Your task to perform on an android device: Empty the shopping cart on target. Add logitech g903 to the cart on target, then select checkout. Image 0: 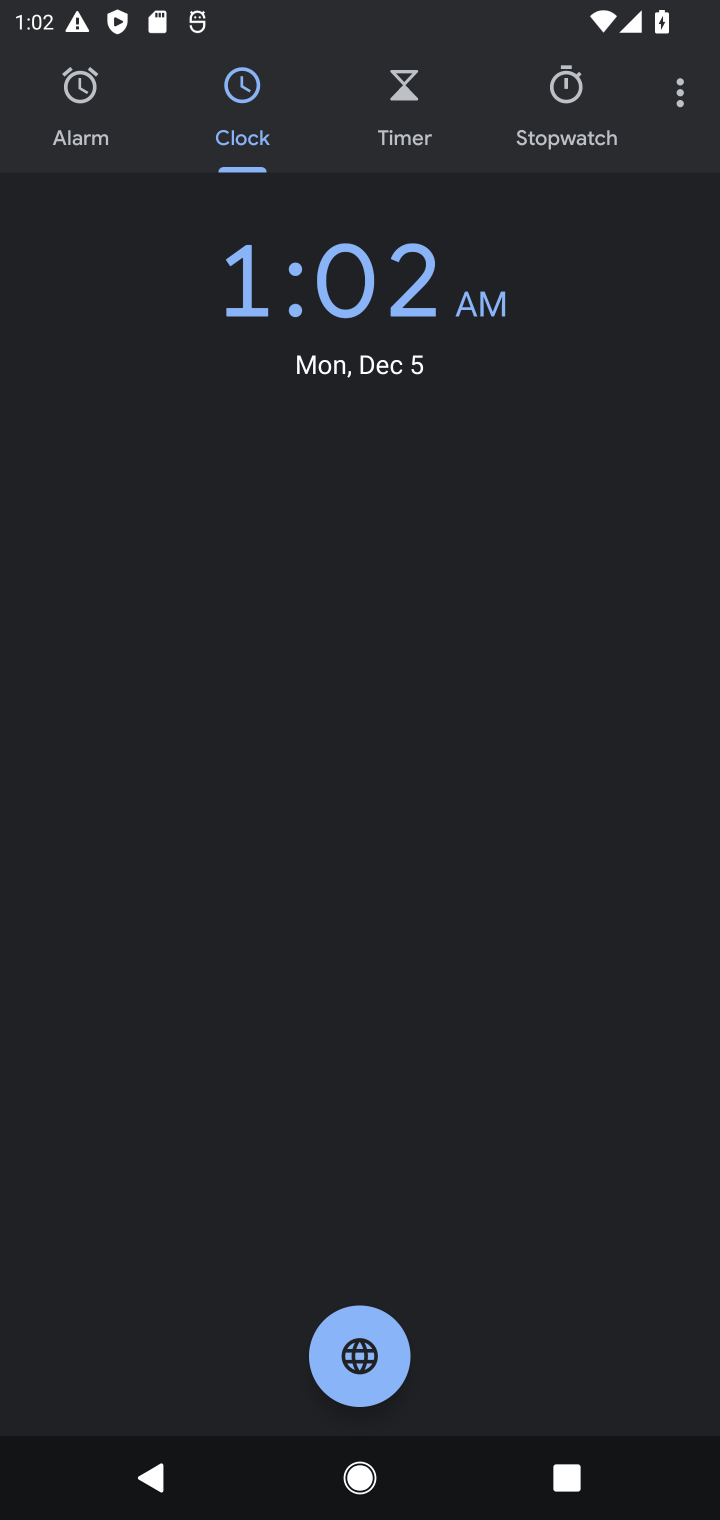
Step 0: press home button
Your task to perform on an android device: Empty the shopping cart on target. Add logitech g903 to the cart on target, then select checkout. Image 1: 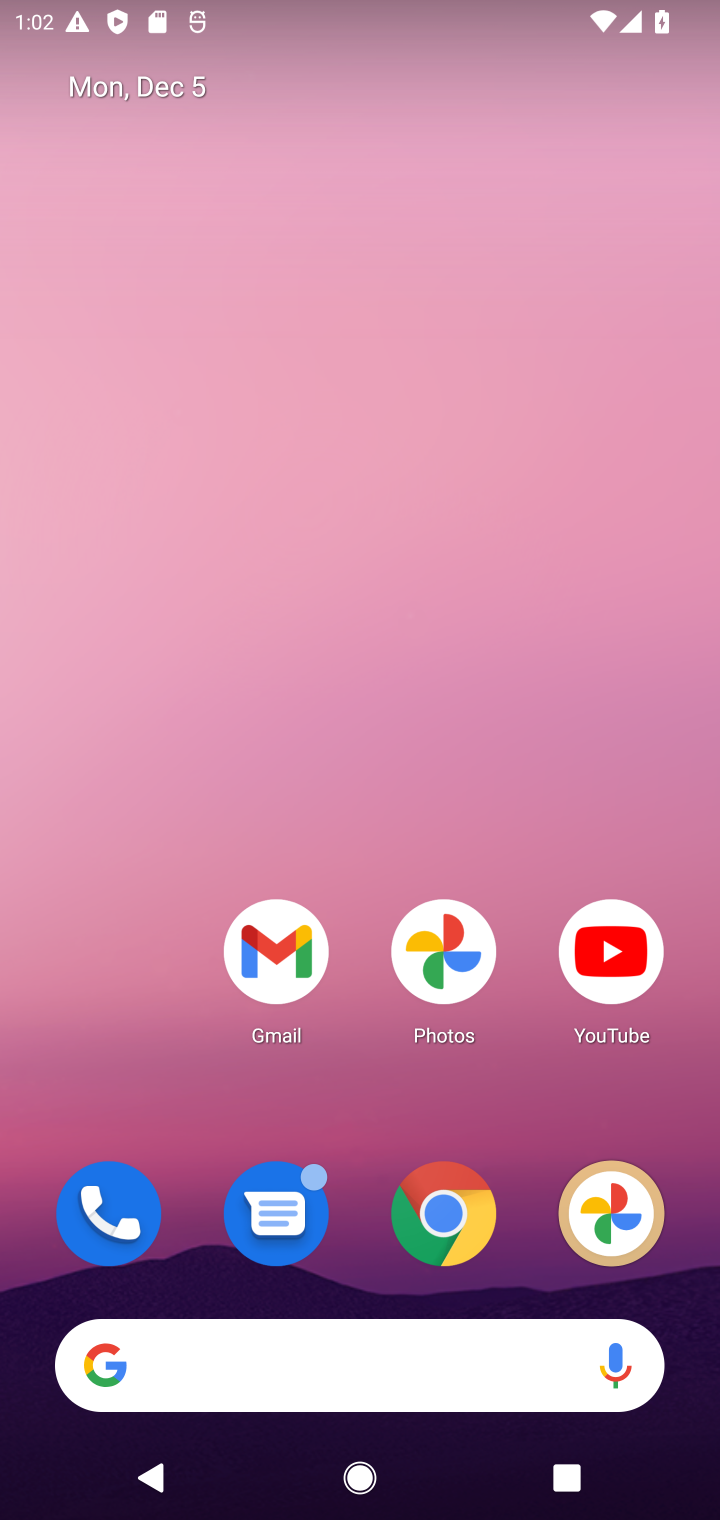
Step 1: click (445, 1195)
Your task to perform on an android device: Empty the shopping cart on target. Add logitech g903 to the cart on target, then select checkout. Image 2: 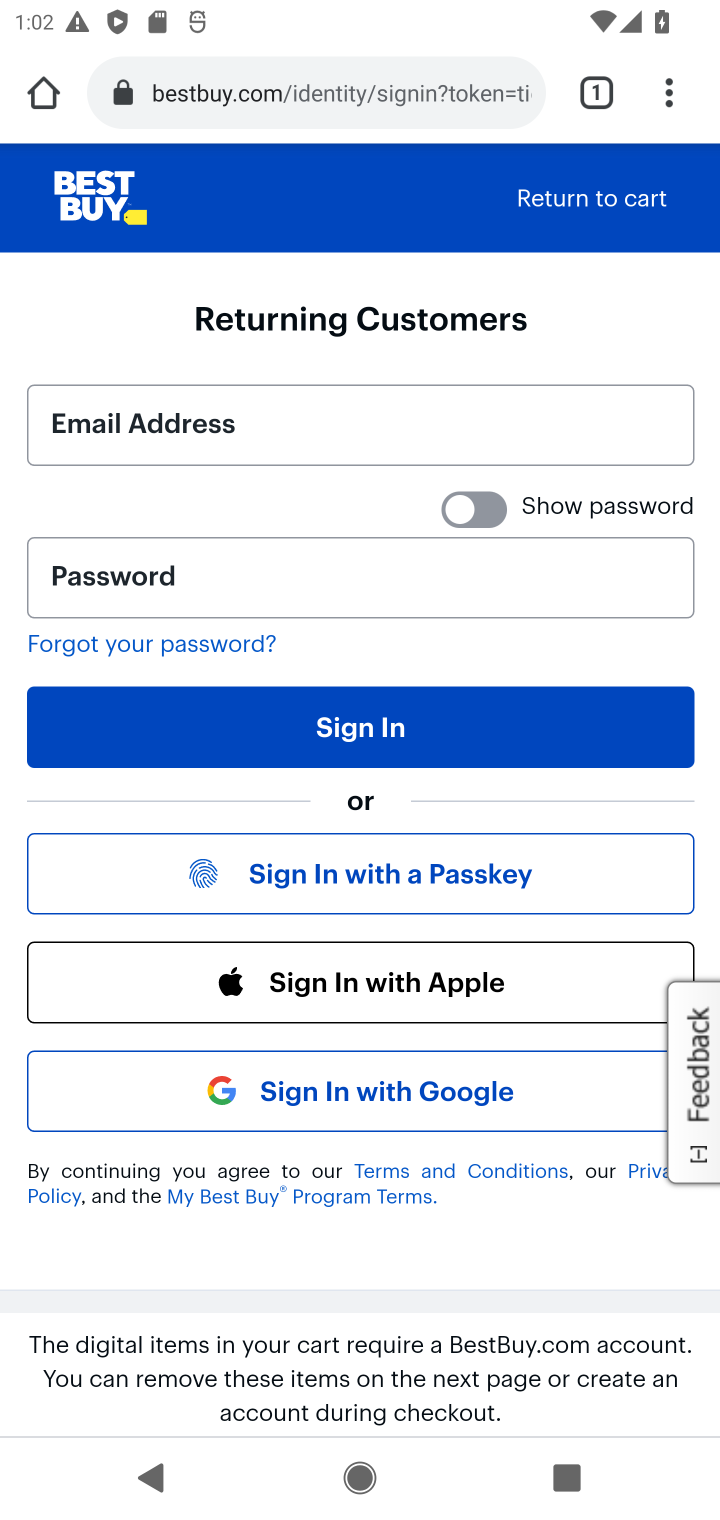
Step 2: click (345, 94)
Your task to perform on an android device: Empty the shopping cart on target. Add logitech g903 to the cart on target, then select checkout. Image 3: 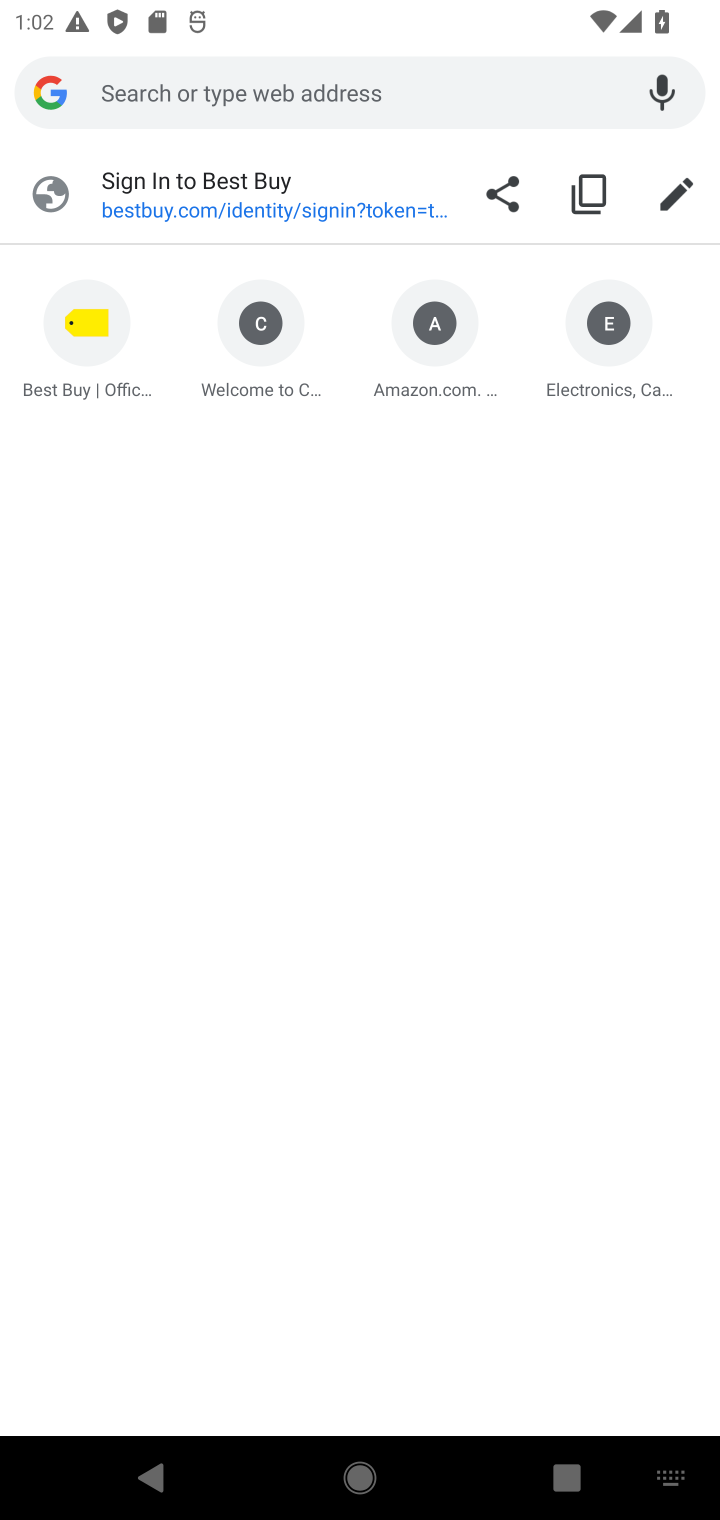
Step 3: type "target.com"
Your task to perform on an android device: Empty the shopping cart on target. Add logitech g903 to the cart on target, then select checkout. Image 4: 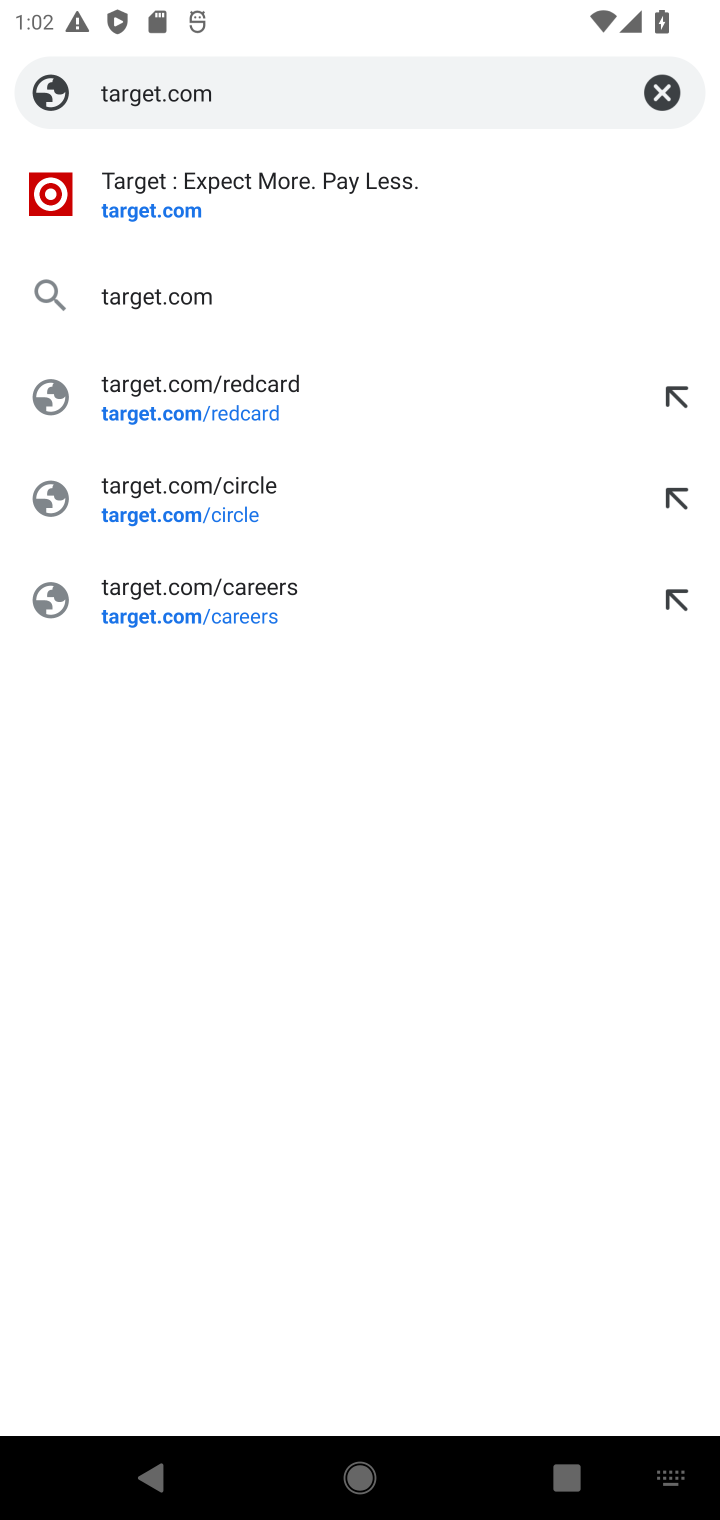
Step 4: click (157, 204)
Your task to perform on an android device: Empty the shopping cart on target. Add logitech g903 to the cart on target, then select checkout. Image 5: 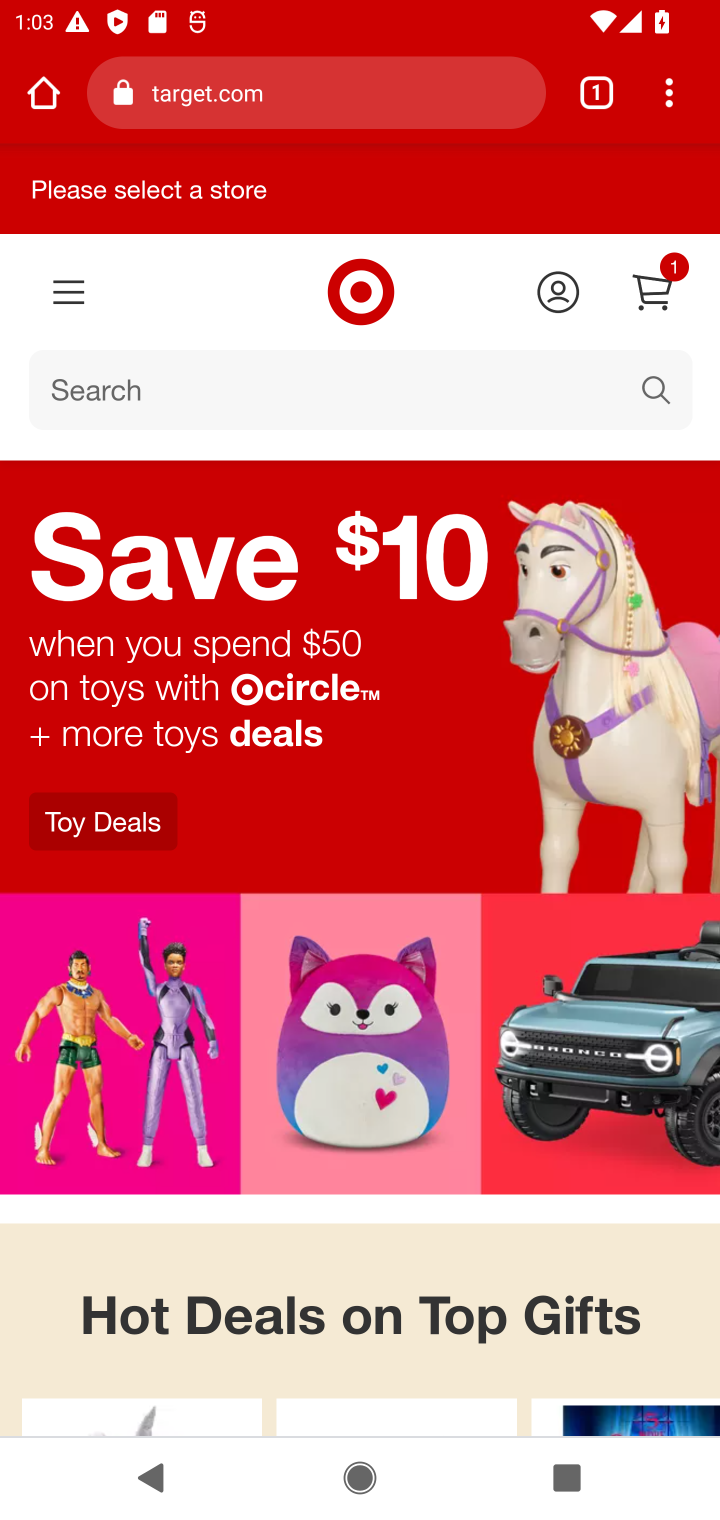
Step 5: click (656, 295)
Your task to perform on an android device: Empty the shopping cart on target. Add logitech g903 to the cart on target, then select checkout. Image 6: 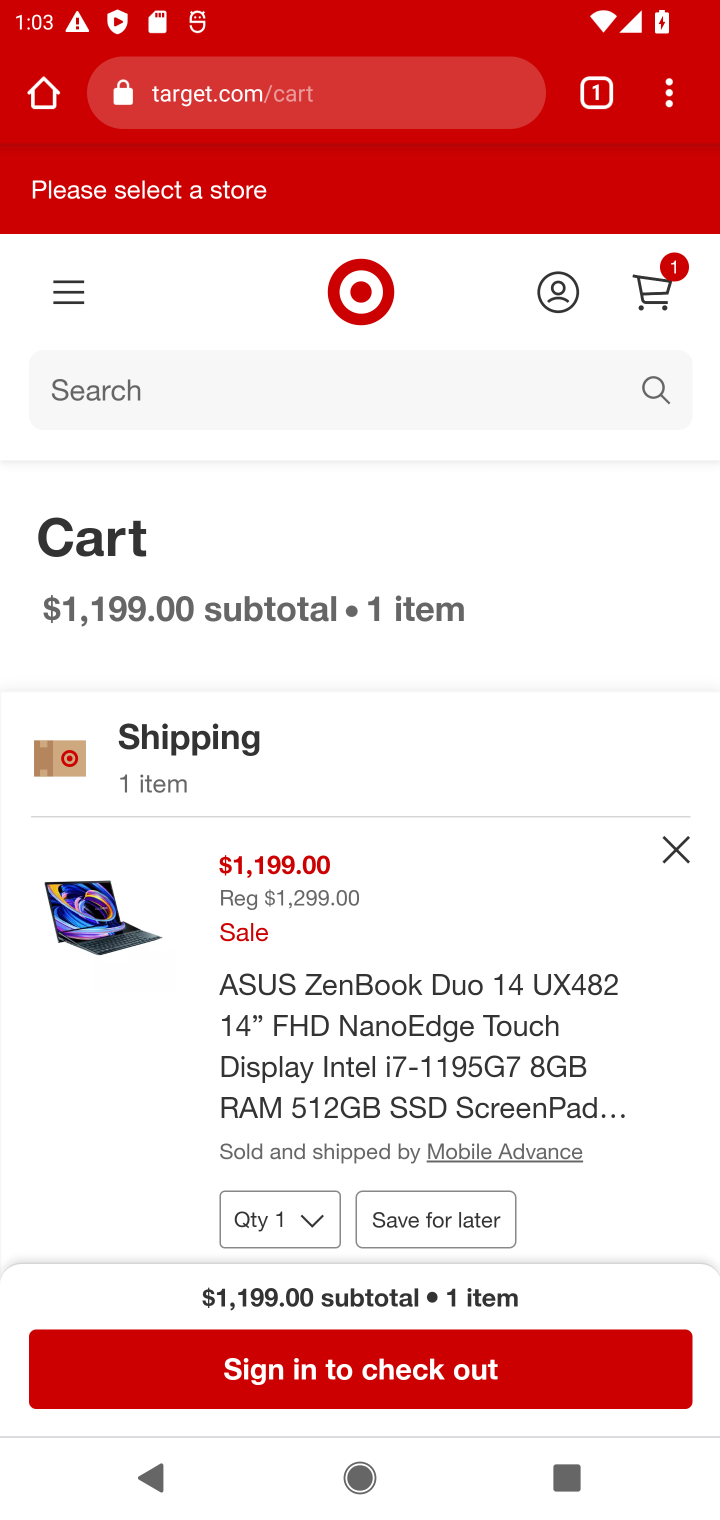
Step 6: click (682, 853)
Your task to perform on an android device: Empty the shopping cart on target. Add logitech g903 to the cart on target, then select checkout. Image 7: 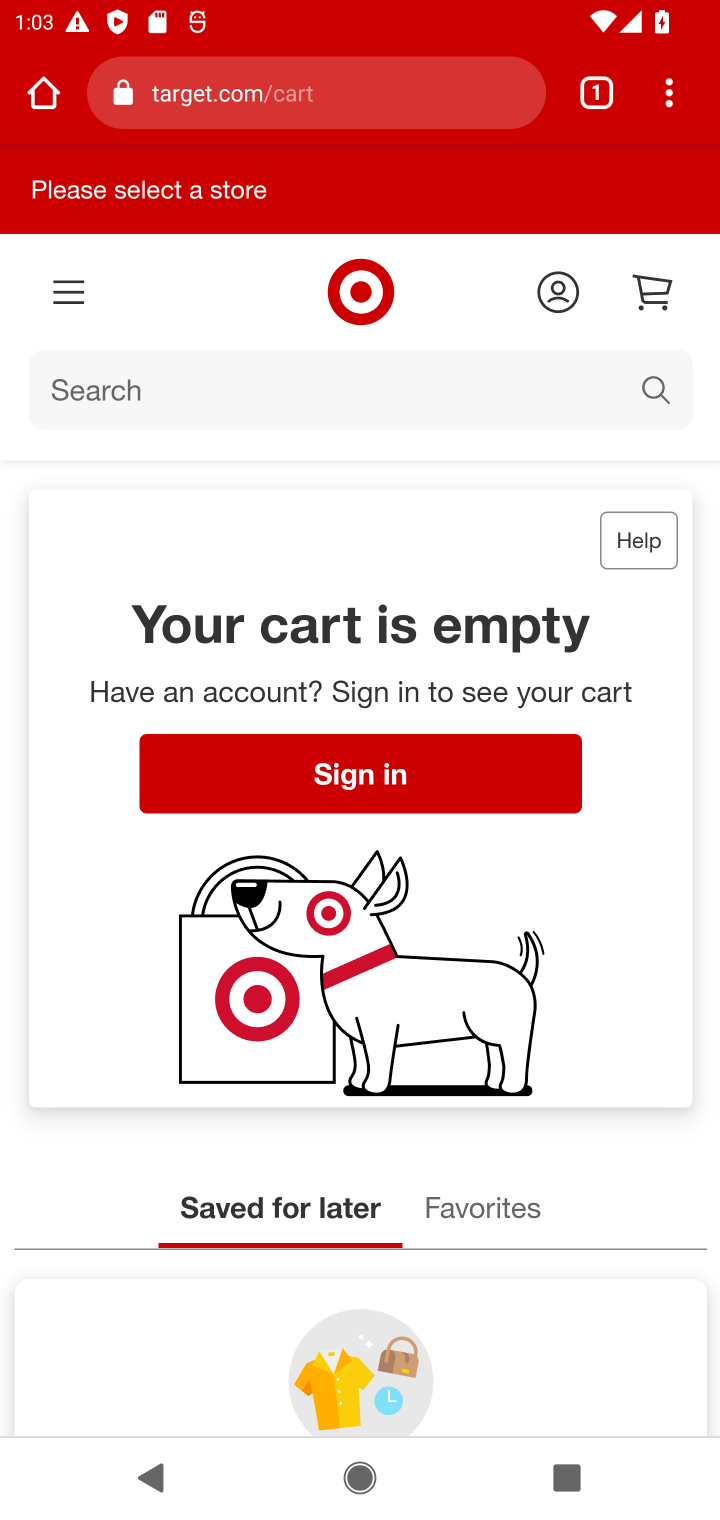
Step 7: click (133, 405)
Your task to perform on an android device: Empty the shopping cart on target. Add logitech g903 to the cart on target, then select checkout. Image 8: 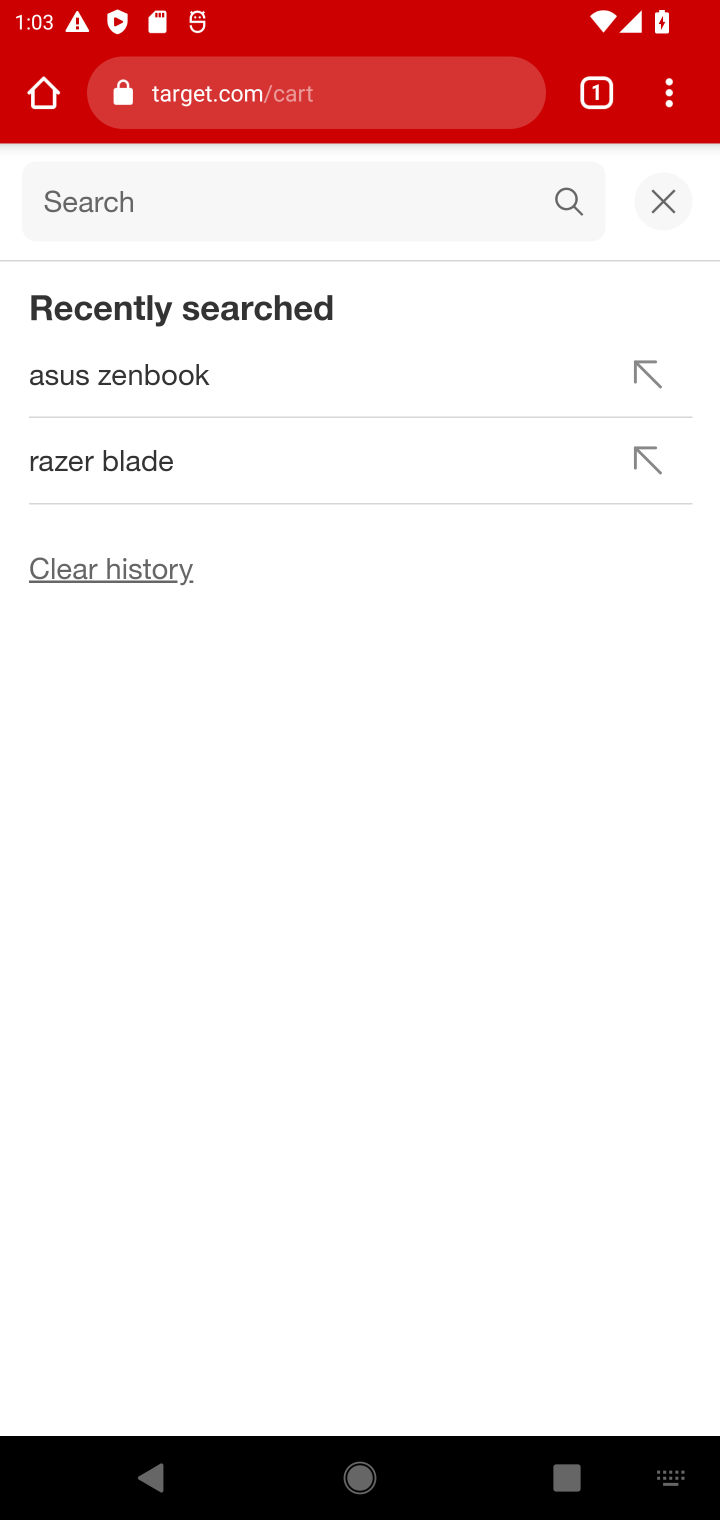
Step 8: type " logitech g903 "
Your task to perform on an android device: Empty the shopping cart on target. Add logitech g903 to the cart on target, then select checkout. Image 9: 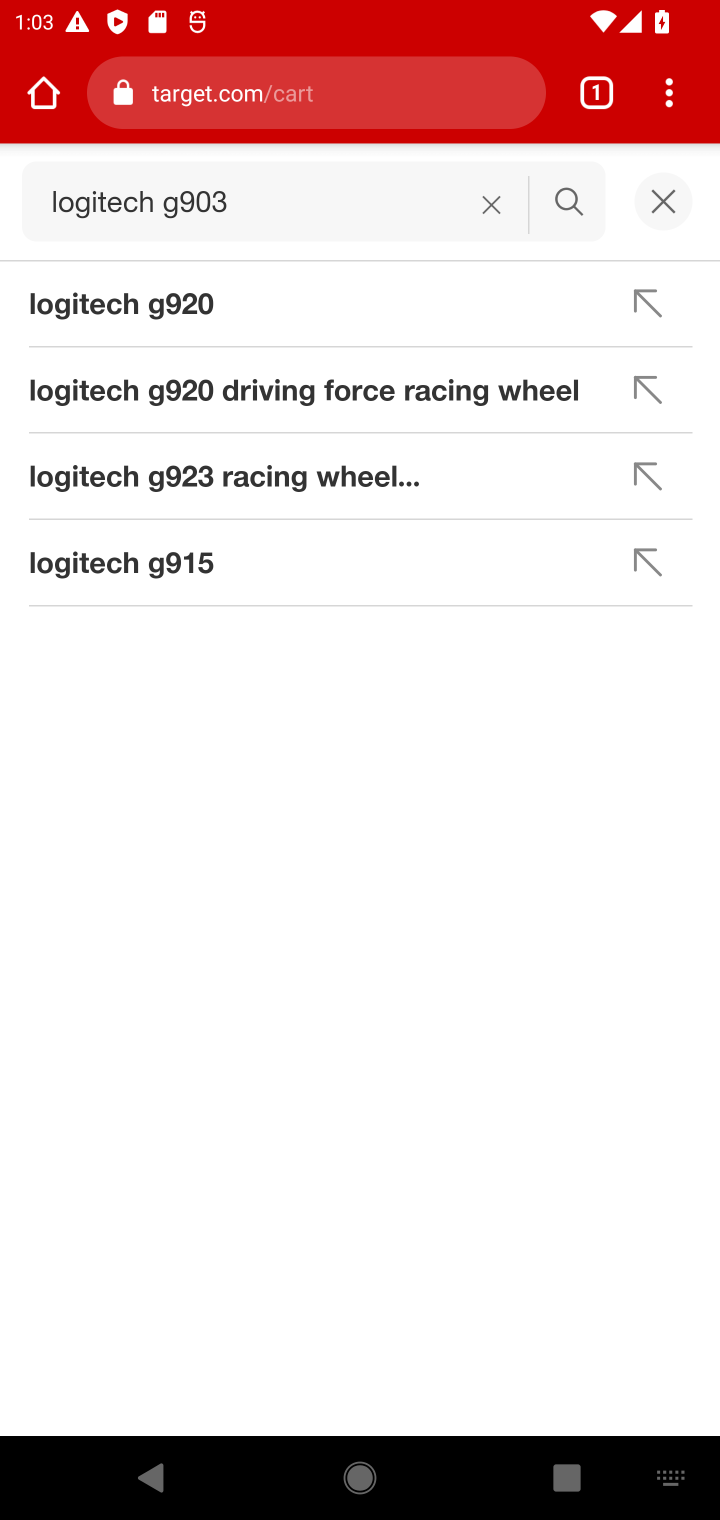
Step 9: click (571, 199)
Your task to perform on an android device: Empty the shopping cart on target. Add logitech g903 to the cart on target, then select checkout. Image 10: 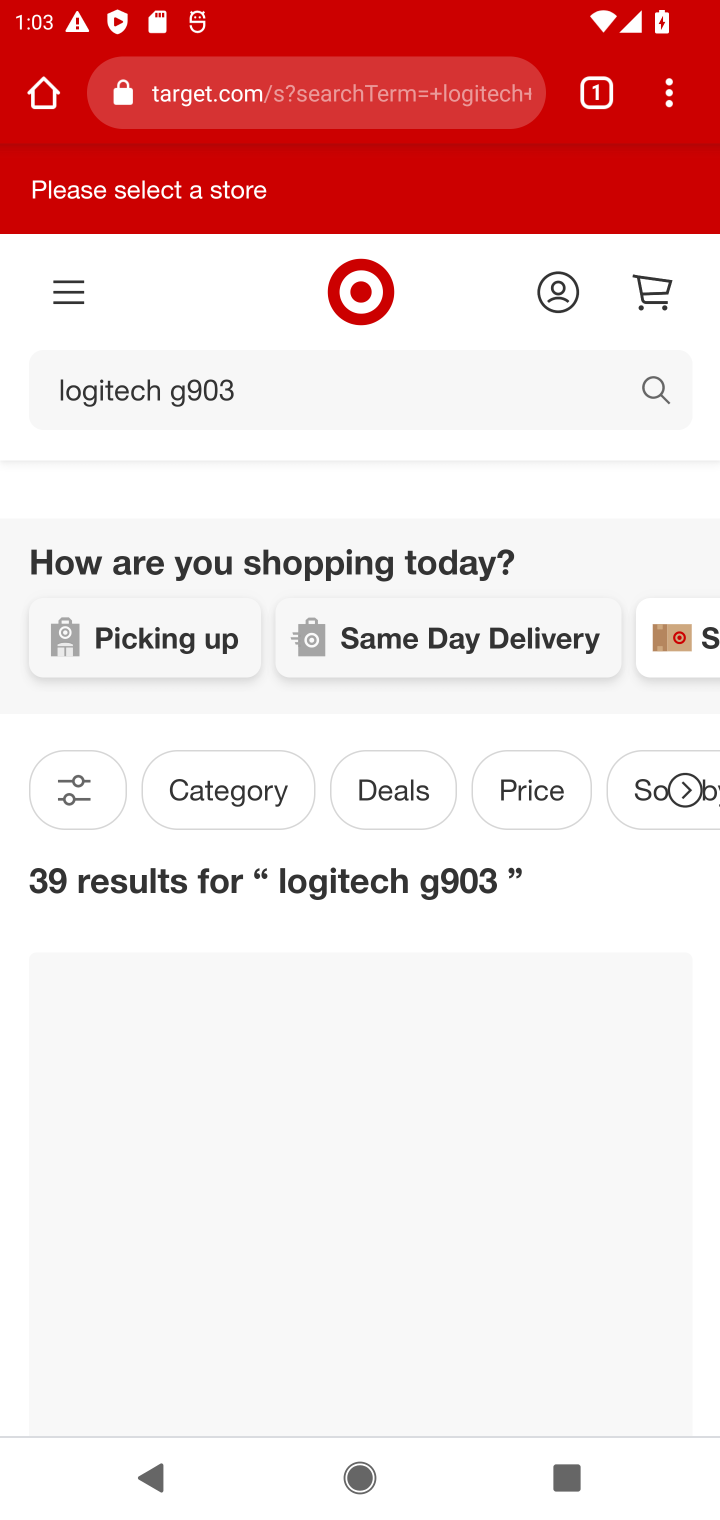
Step 10: task complete